Your task to perform on an android device: search for starred emails in the gmail app Image 0: 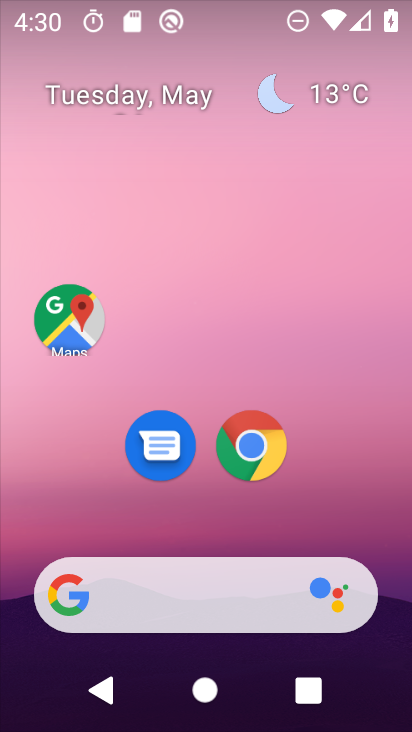
Step 0: press home button
Your task to perform on an android device: search for starred emails in the gmail app Image 1: 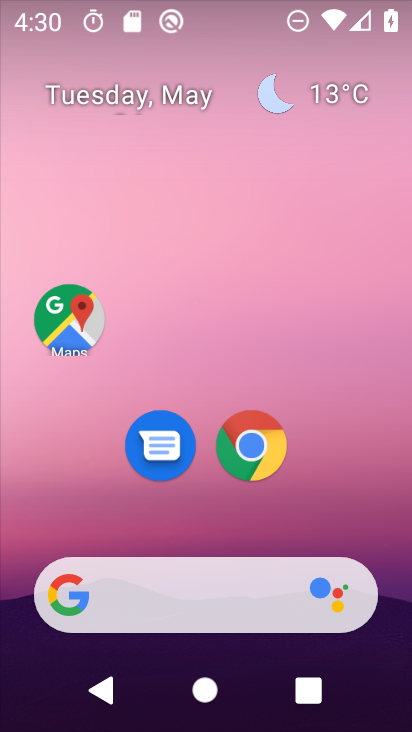
Step 1: drag from (207, 524) to (178, 51)
Your task to perform on an android device: search for starred emails in the gmail app Image 2: 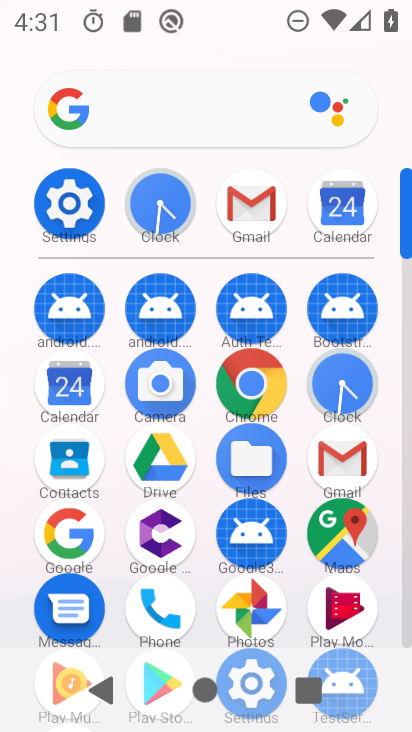
Step 2: click (248, 197)
Your task to perform on an android device: search for starred emails in the gmail app Image 3: 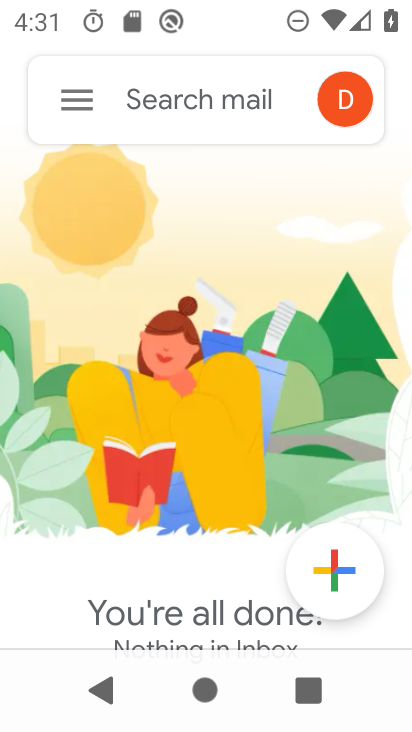
Step 3: click (75, 94)
Your task to perform on an android device: search for starred emails in the gmail app Image 4: 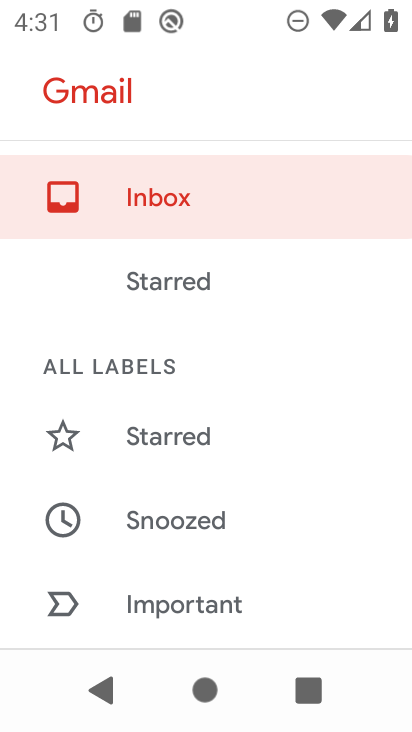
Step 4: click (171, 432)
Your task to perform on an android device: search for starred emails in the gmail app Image 5: 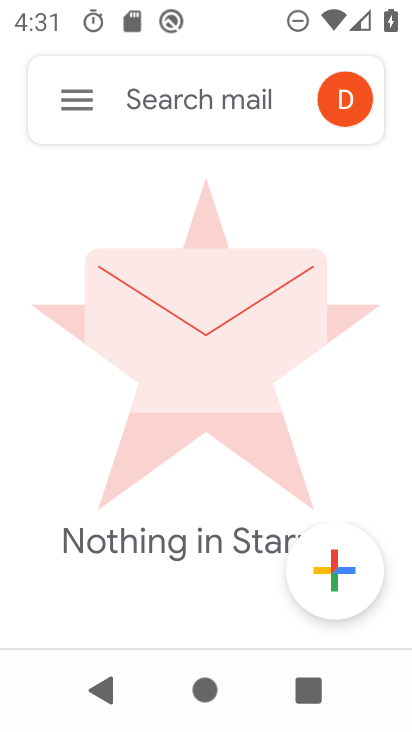
Step 5: task complete